Your task to perform on an android device: turn on improve location accuracy Image 0: 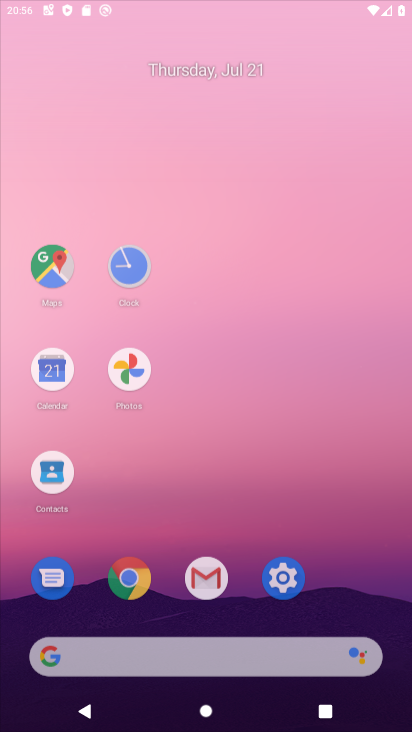
Step 0: click (286, 591)
Your task to perform on an android device: turn on improve location accuracy Image 1: 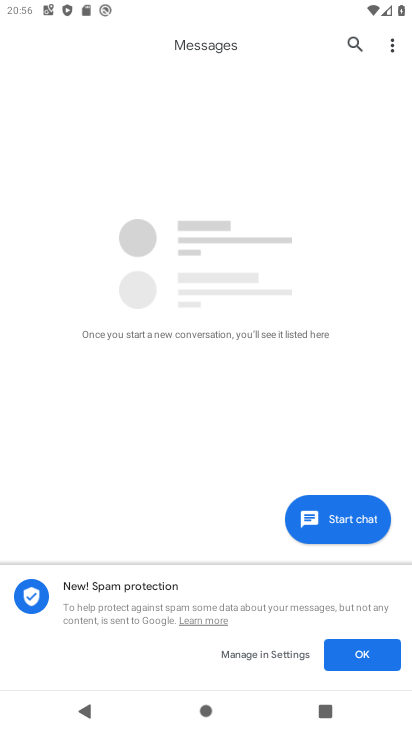
Step 1: press home button
Your task to perform on an android device: turn on improve location accuracy Image 2: 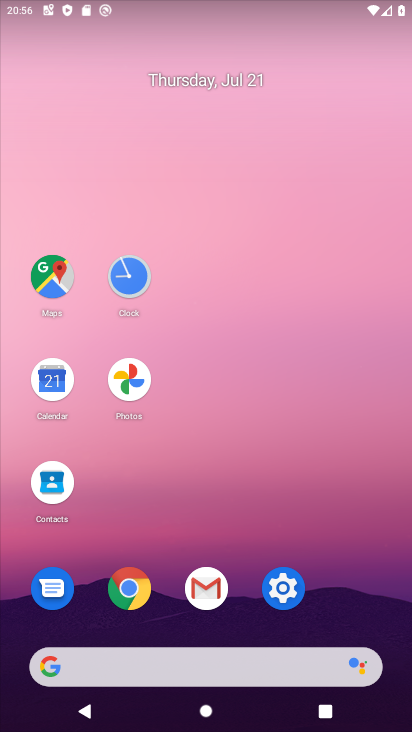
Step 2: click (281, 598)
Your task to perform on an android device: turn on improve location accuracy Image 3: 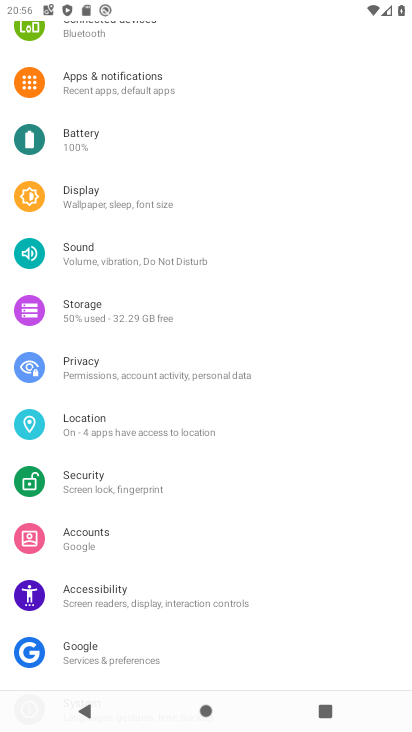
Step 3: click (72, 422)
Your task to perform on an android device: turn on improve location accuracy Image 4: 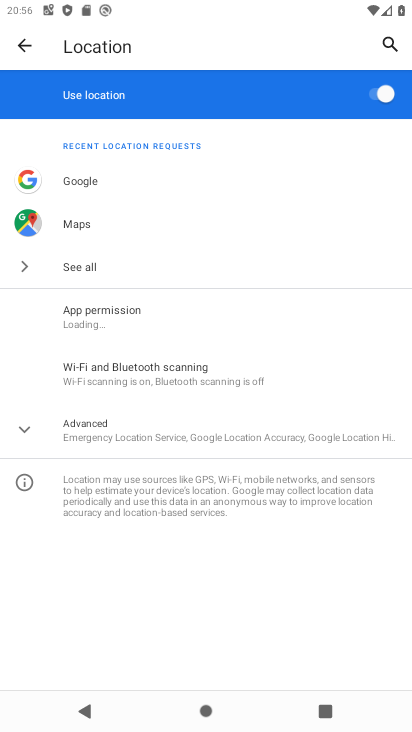
Step 4: click (32, 424)
Your task to perform on an android device: turn on improve location accuracy Image 5: 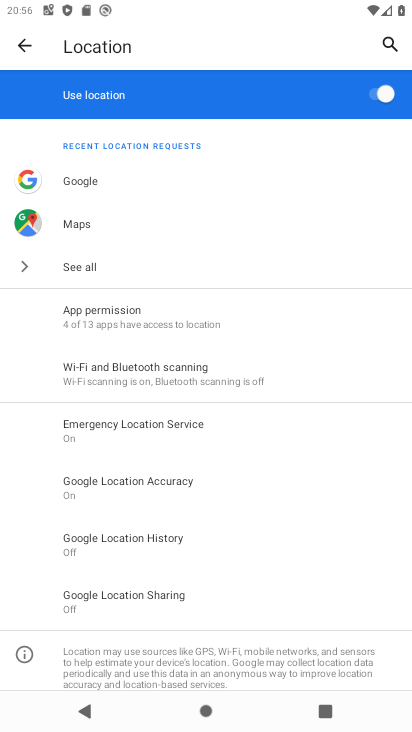
Step 5: click (111, 482)
Your task to perform on an android device: turn on improve location accuracy Image 6: 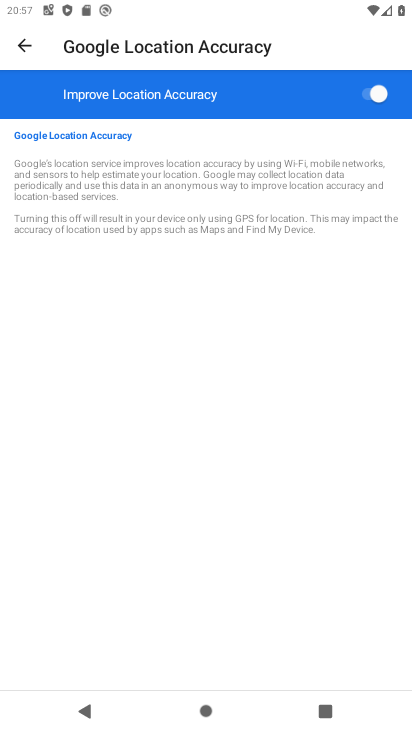
Step 6: task complete